Your task to perform on an android device: toggle notification dots Image 0: 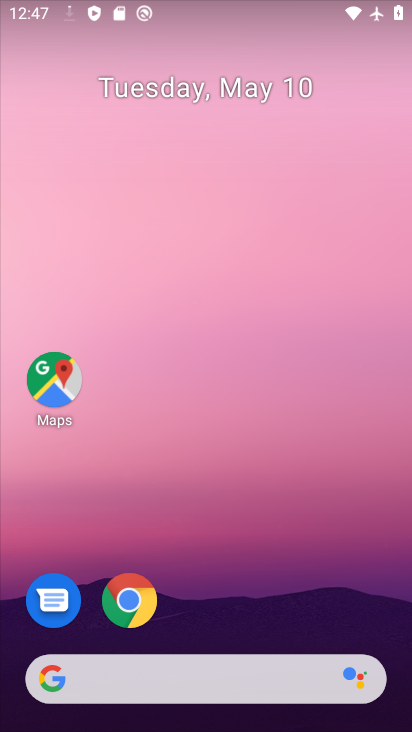
Step 0: drag from (250, 609) to (203, 33)
Your task to perform on an android device: toggle notification dots Image 1: 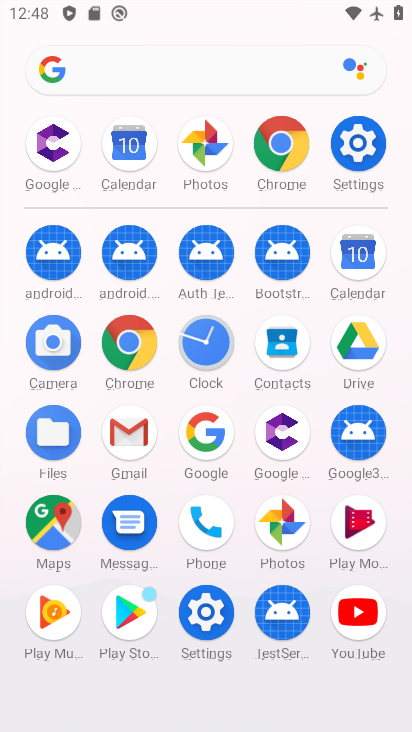
Step 1: click (359, 149)
Your task to perform on an android device: toggle notification dots Image 2: 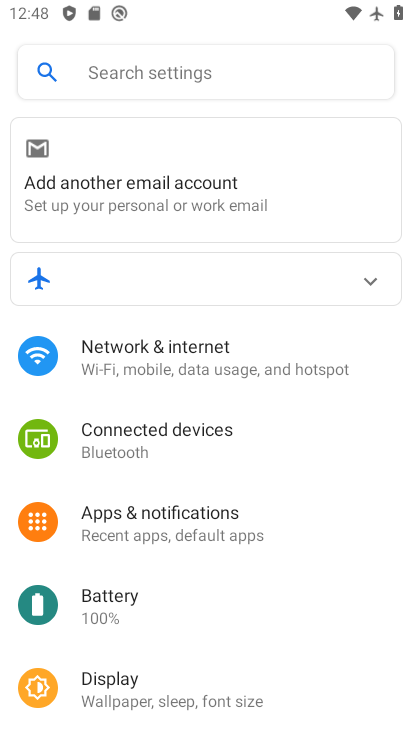
Step 2: click (212, 529)
Your task to perform on an android device: toggle notification dots Image 3: 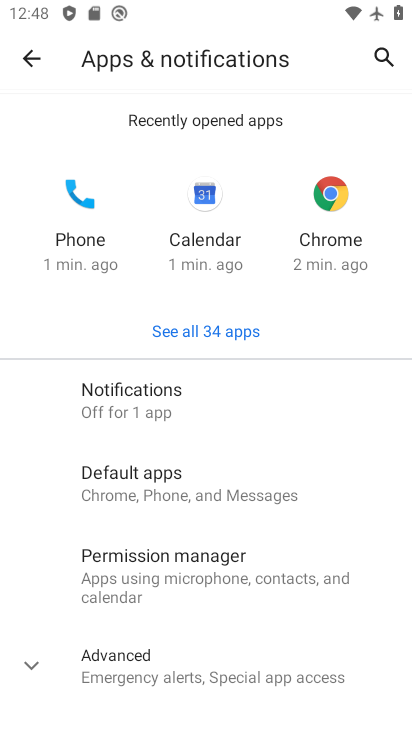
Step 3: click (220, 399)
Your task to perform on an android device: toggle notification dots Image 4: 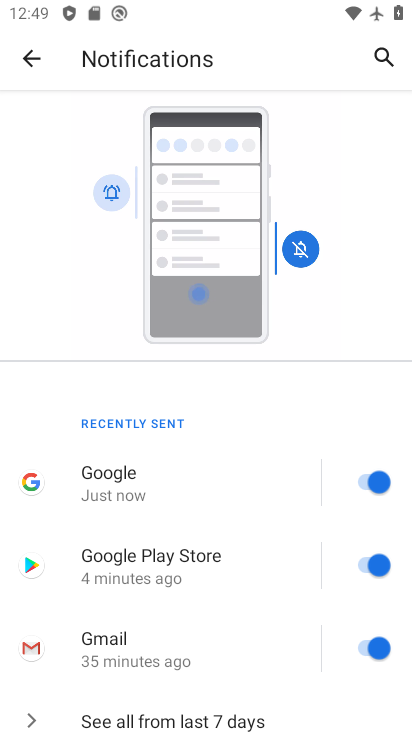
Step 4: drag from (186, 569) to (222, 341)
Your task to perform on an android device: toggle notification dots Image 5: 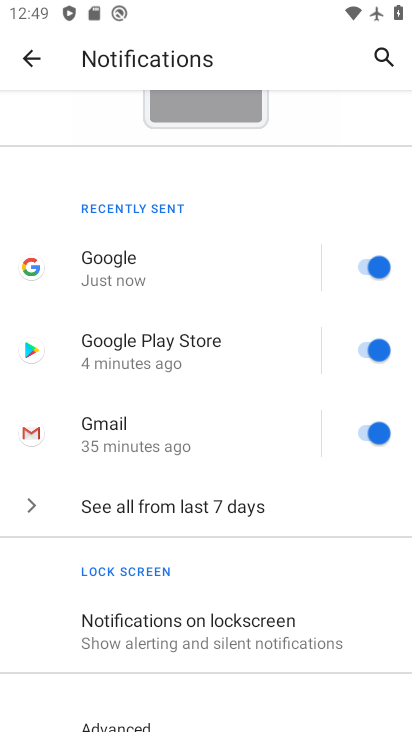
Step 5: drag from (242, 618) to (250, 207)
Your task to perform on an android device: toggle notification dots Image 6: 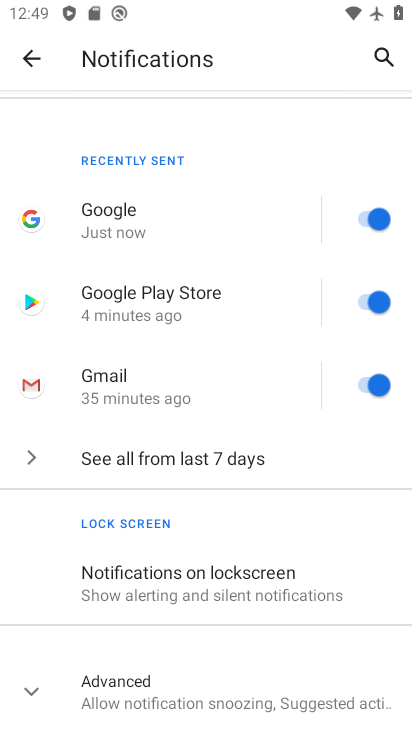
Step 6: click (202, 676)
Your task to perform on an android device: toggle notification dots Image 7: 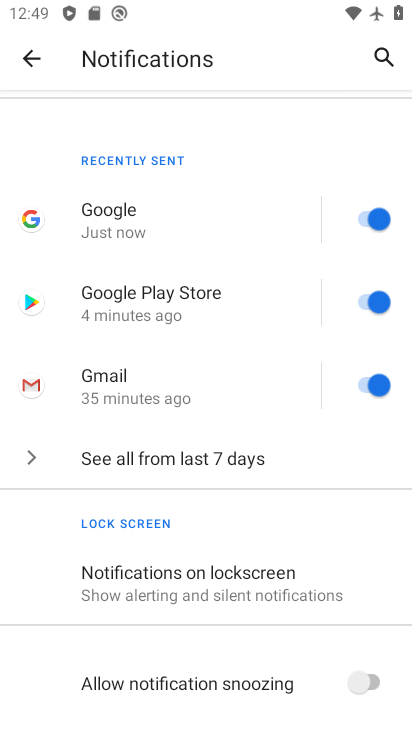
Step 7: drag from (212, 573) to (213, 2)
Your task to perform on an android device: toggle notification dots Image 8: 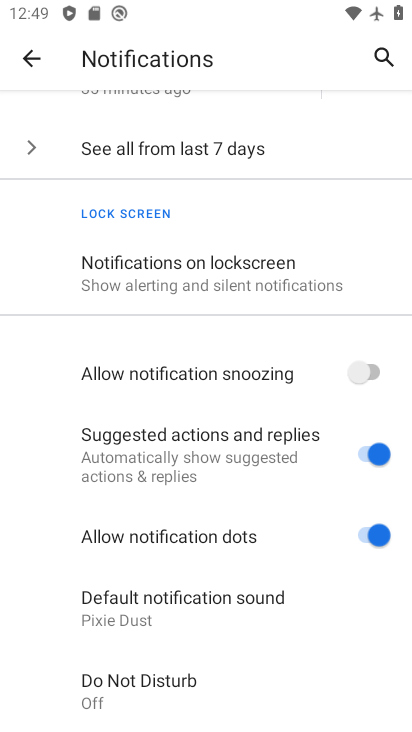
Step 8: click (373, 549)
Your task to perform on an android device: toggle notification dots Image 9: 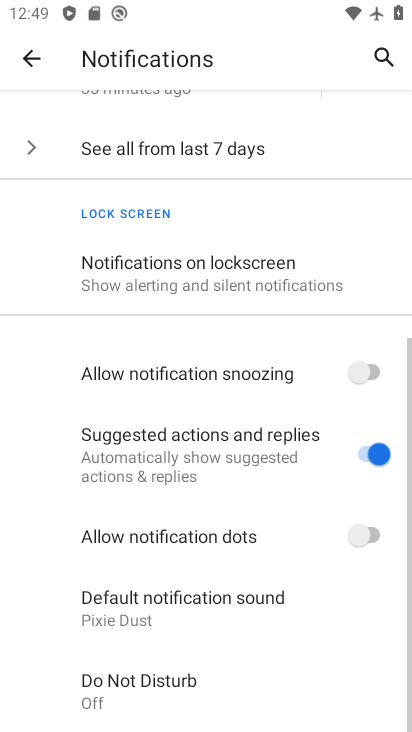
Step 9: task complete